Your task to perform on an android device: What's the weather going to be tomorrow? Image 0: 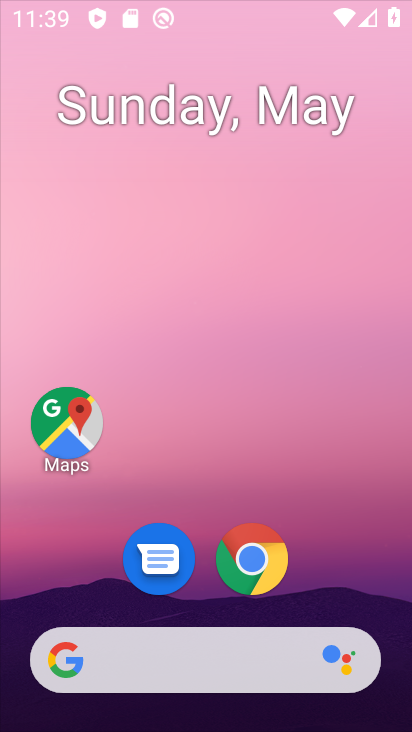
Step 0: click (225, 3)
Your task to perform on an android device: What's the weather going to be tomorrow? Image 1: 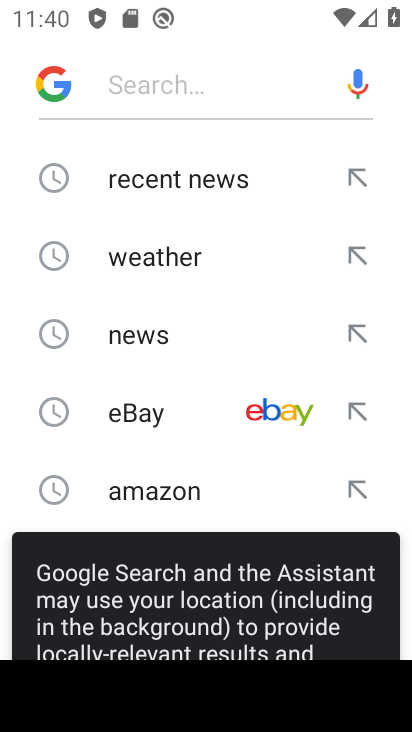
Step 1: drag from (401, 670) to (305, 727)
Your task to perform on an android device: What's the weather going to be tomorrow? Image 2: 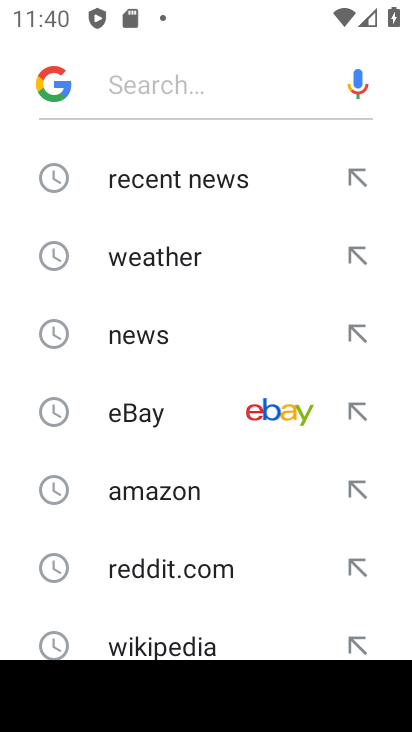
Step 2: type "What's the weather going to be tomorrow?"
Your task to perform on an android device: What's the weather going to be tomorrow? Image 3: 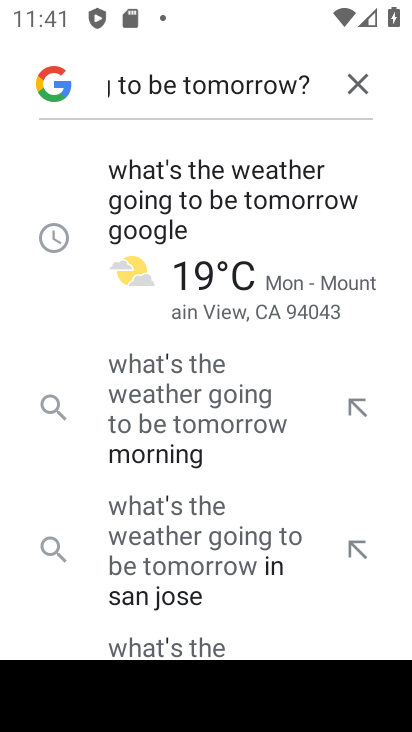
Step 3: click (300, 197)
Your task to perform on an android device: What's the weather going to be tomorrow? Image 4: 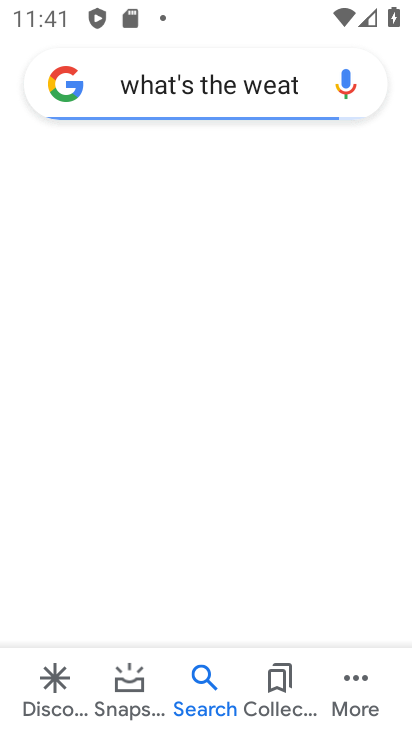
Step 4: task complete